Your task to perform on an android device: Open the calendar and show me this week's events? Image 0: 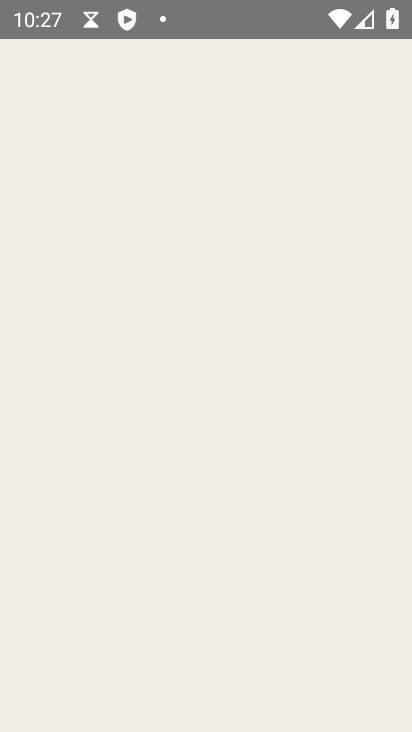
Step 0: press home button
Your task to perform on an android device: Open the calendar and show me this week's events? Image 1: 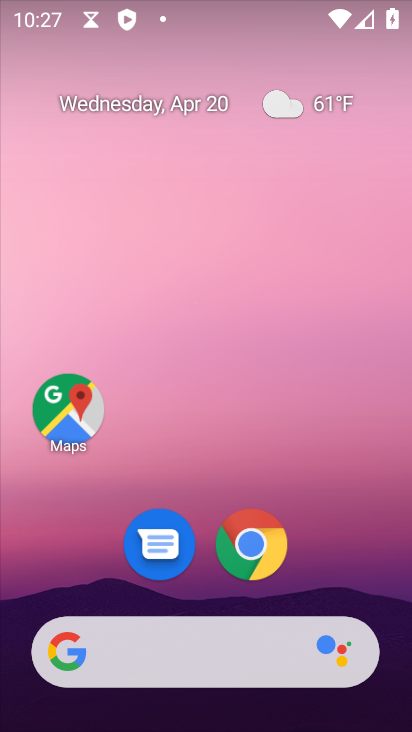
Step 1: drag from (167, 594) to (268, 122)
Your task to perform on an android device: Open the calendar and show me this week's events? Image 2: 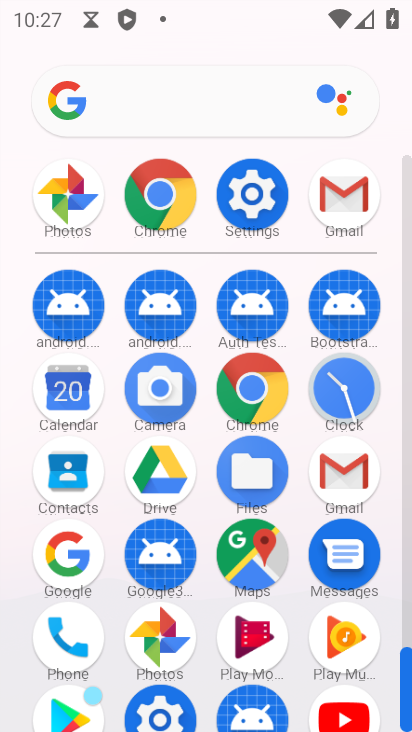
Step 2: click (76, 395)
Your task to perform on an android device: Open the calendar and show me this week's events? Image 3: 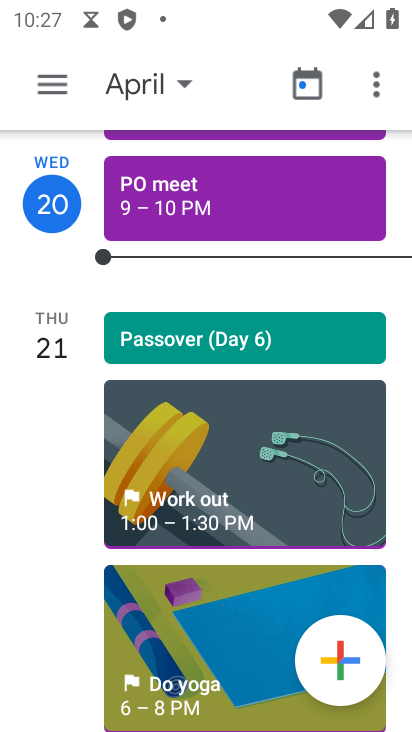
Step 3: click (137, 88)
Your task to perform on an android device: Open the calendar and show me this week's events? Image 4: 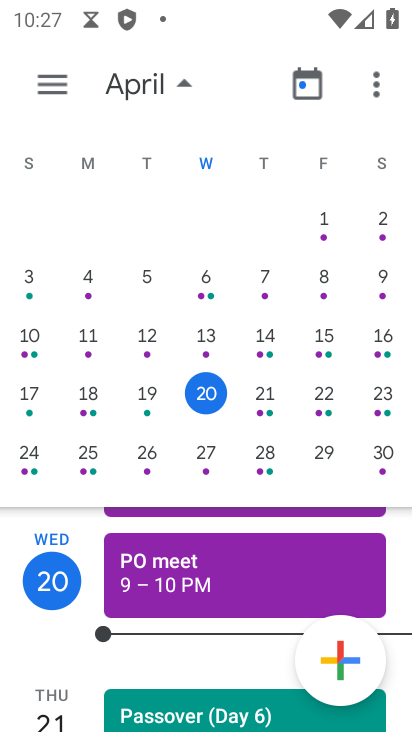
Step 4: click (57, 86)
Your task to perform on an android device: Open the calendar and show me this week's events? Image 5: 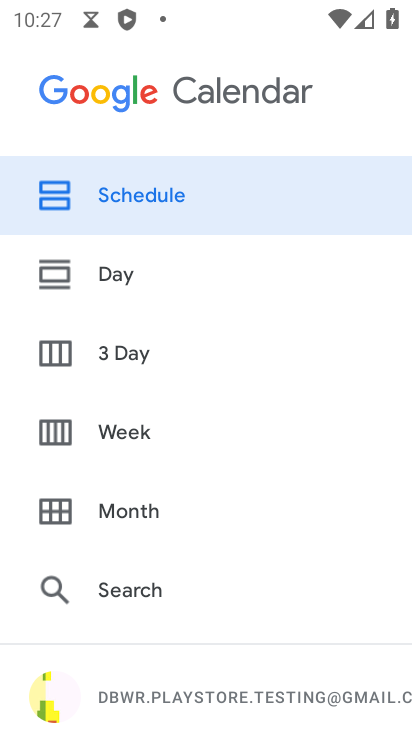
Step 5: click (111, 431)
Your task to perform on an android device: Open the calendar and show me this week's events? Image 6: 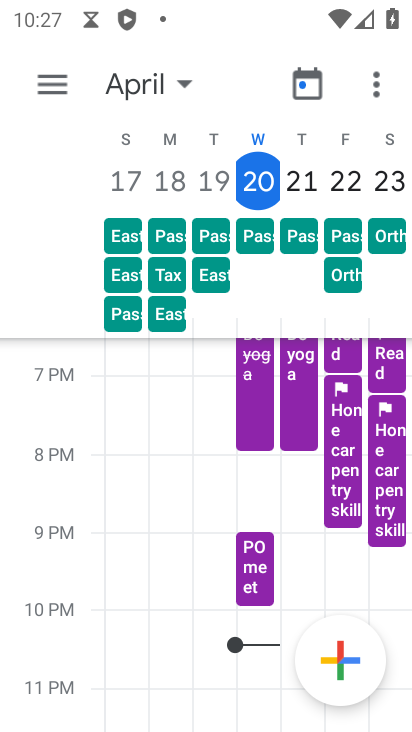
Step 6: click (53, 86)
Your task to perform on an android device: Open the calendar and show me this week's events? Image 7: 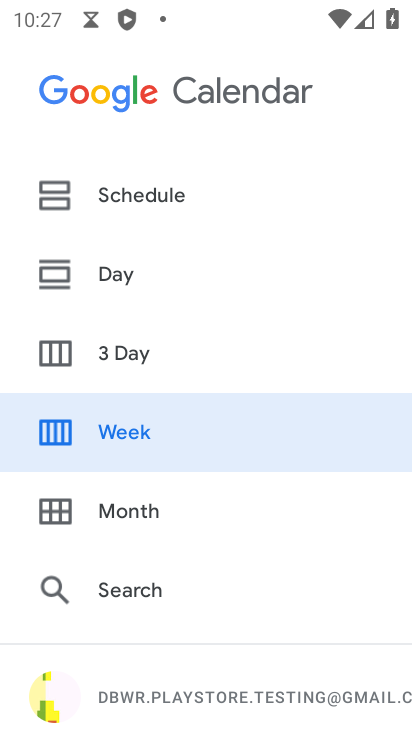
Step 7: click (148, 191)
Your task to perform on an android device: Open the calendar and show me this week's events? Image 8: 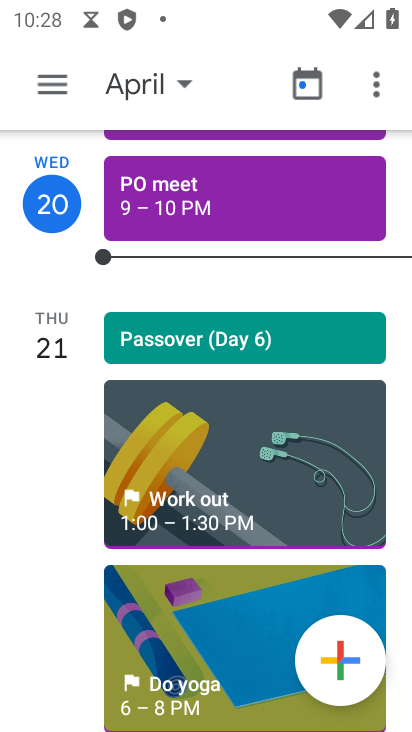
Step 8: click (220, 195)
Your task to perform on an android device: Open the calendar and show me this week's events? Image 9: 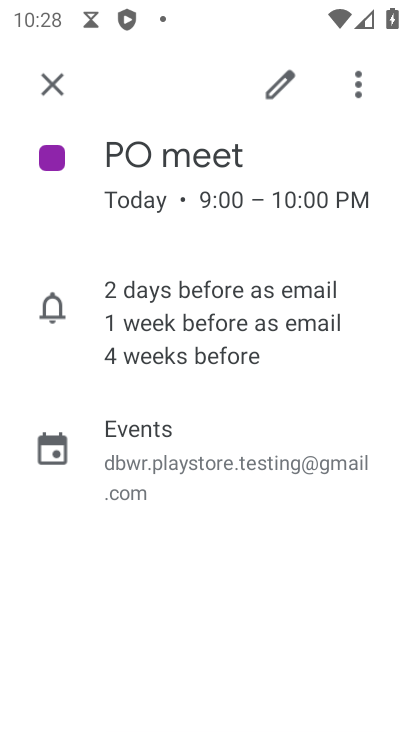
Step 9: task complete